Your task to perform on an android device: add a contact Image 0: 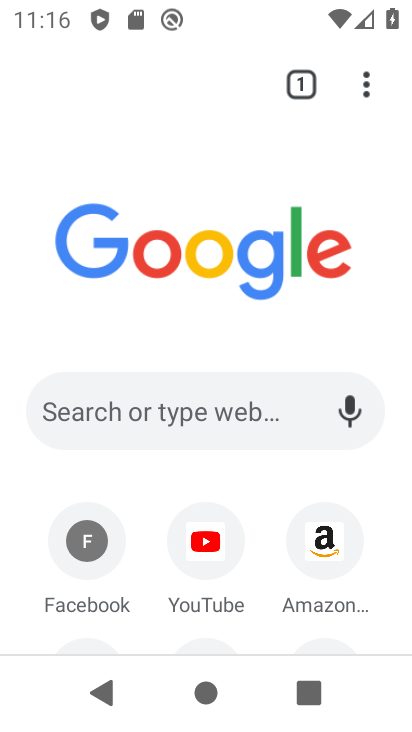
Step 0: press back button
Your task to perform on an android device: add a contact Image 1: 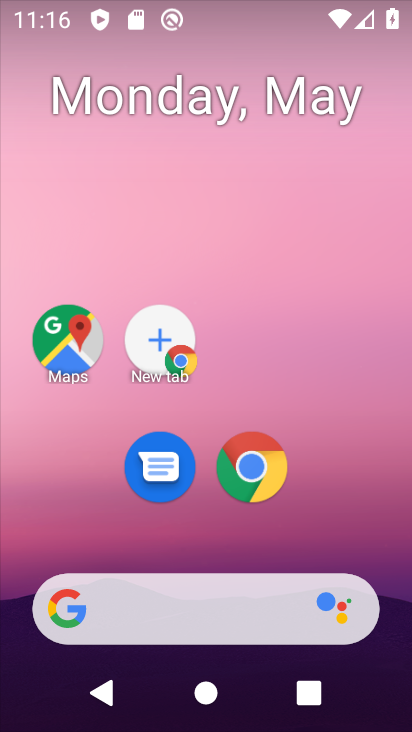
Step 1: drag from (359, 533) to (86, 150)
Your task to perform on an android device: add a contact Image 2: 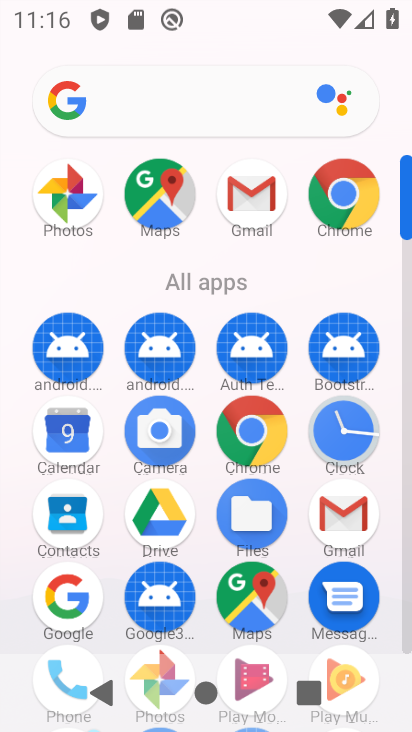
Step 2: click (74, 534)
Your task to perform on an android device: add a contact Image 3: 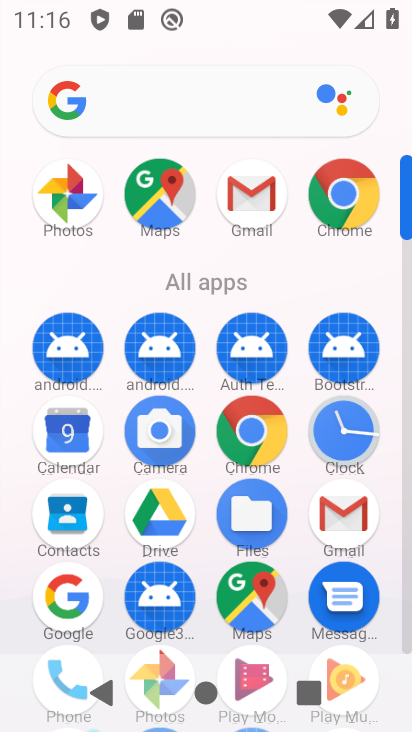
Step 3: click (71, 532)
Your task to perform on an android device: add a contact Image 4: 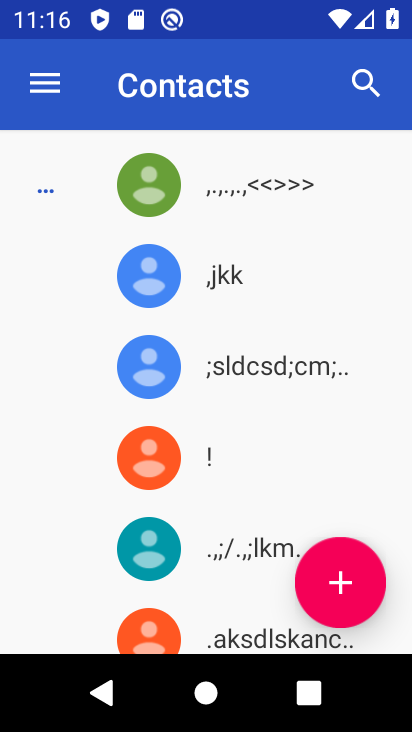
Step 4: click (338, 584)
Your task to perform on an android device: add a contact Image 5: 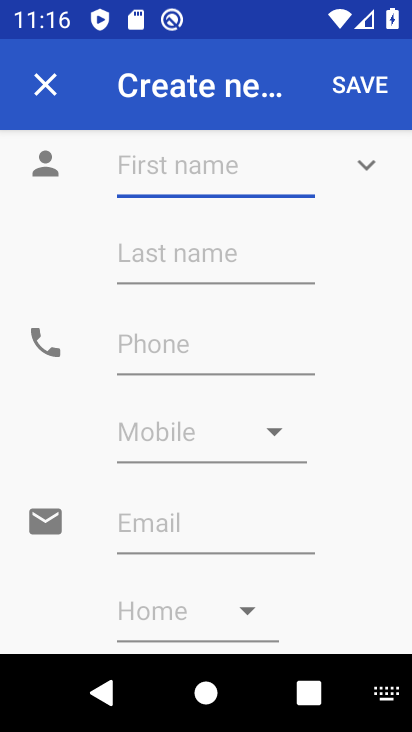
Step 5: drag from (120, 164) to (278, 264)
Your task to perform on an android device: add a contact Image 6: 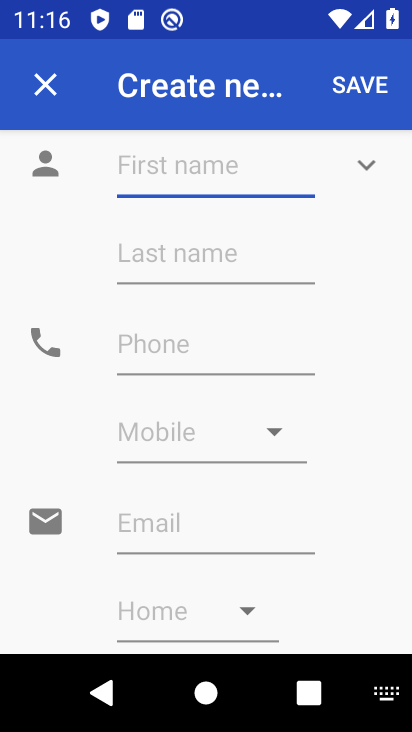
Step 6: type "manujika"
Your task to perform on an android device: add a contact Image 7: 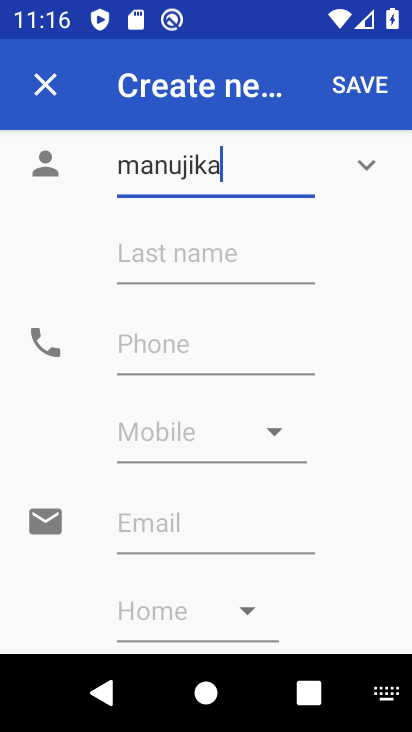
Step 7: click (129, 448)
Your task to perform on an android device: add a contact Image 8: 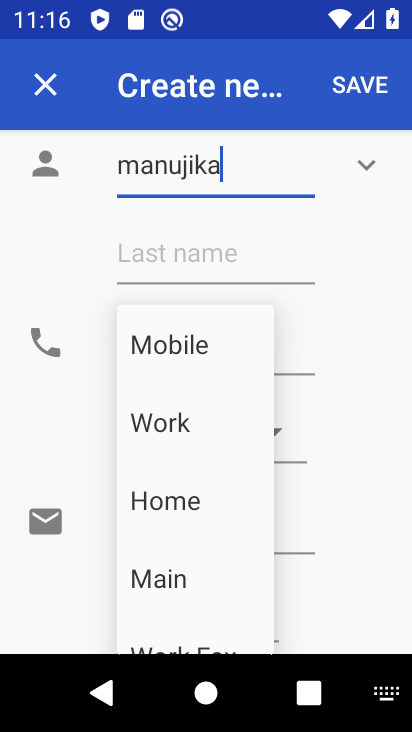
Step 8: click (358, 313)
Your task to perform on an android device: add a contact Image 9: 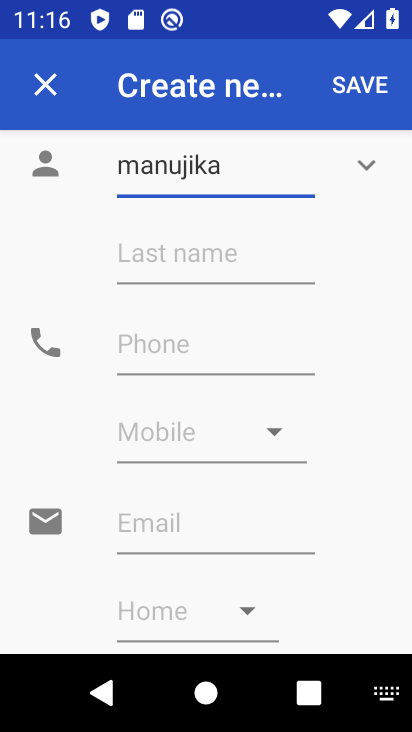
Step 9: click (71, 341)
Your task to perform on an android device: add a contact Image 10: 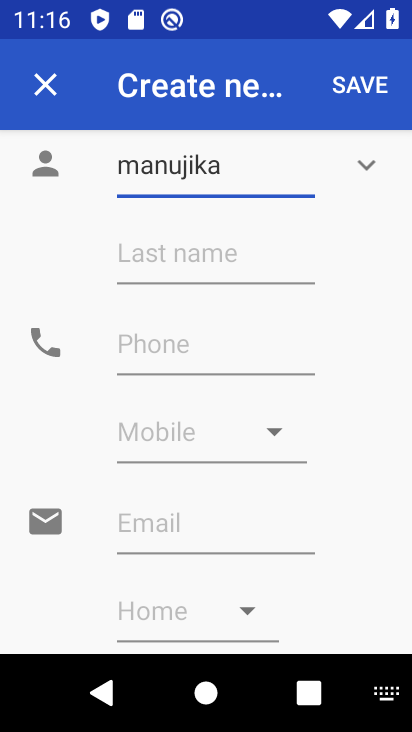
Step 10: click (132, 348)
Your task to perform on an android device: add a contact Image 11: 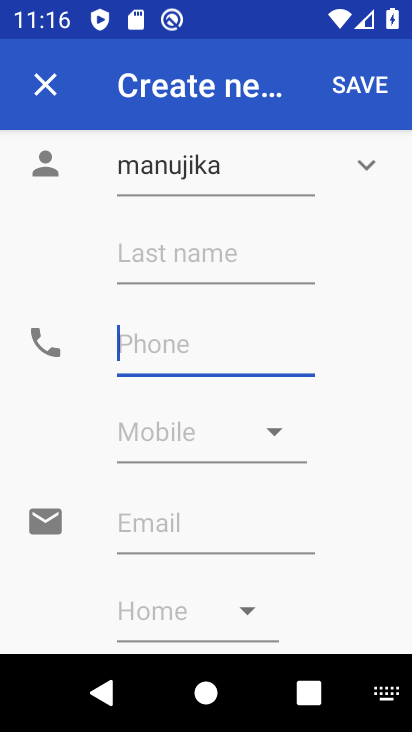
Step 11: click (132, 348)
Your task to perform on an android device: add a contact Image 12: 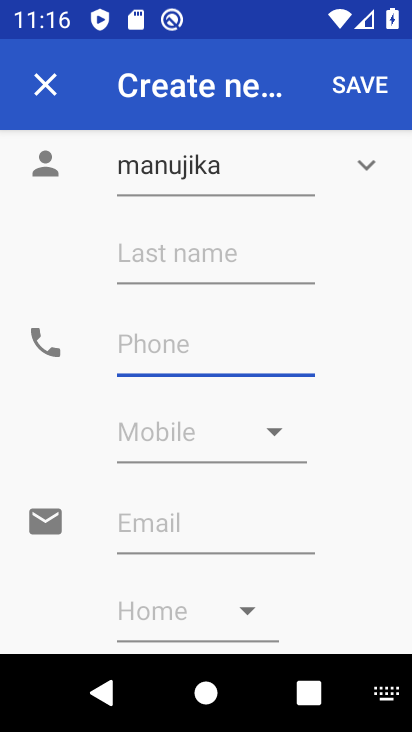
Step 12: click (132, 348)
Your task to perform on an android device: add a contact Image 13: 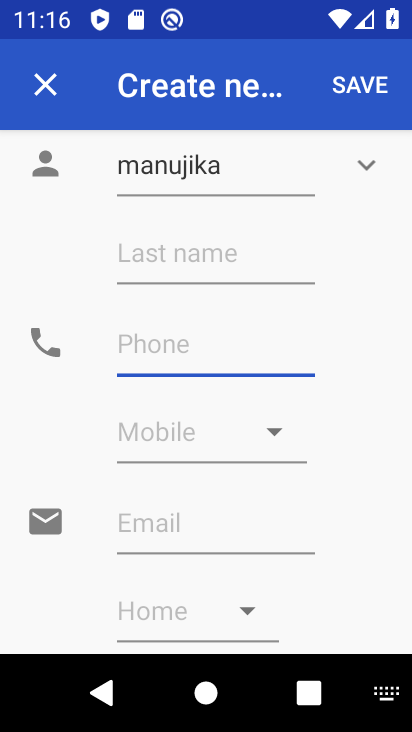
Step 13: type "9808766454465"
Your task to perform on an android device: add a contact Image 14: 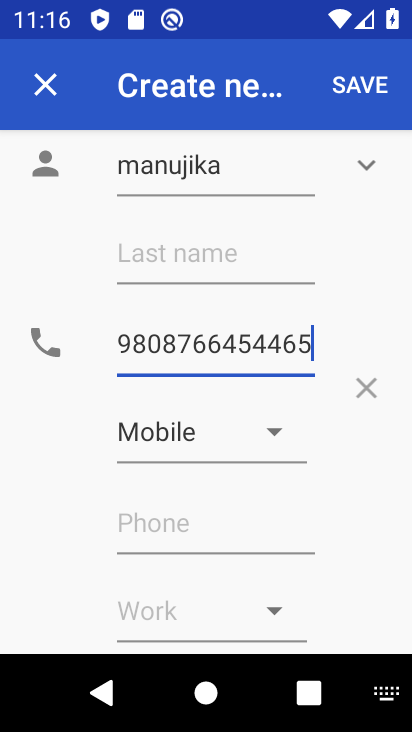
Step 14: click (366, 91)
Your task to perform on an android device: add a contact Image 15: 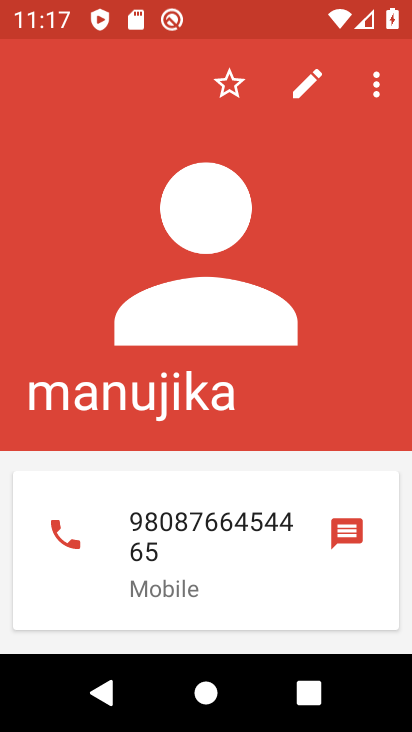
Step 15: task complete